Your task to perform on an android device: Add beats solo 3 to the cart on newegg Image 0: 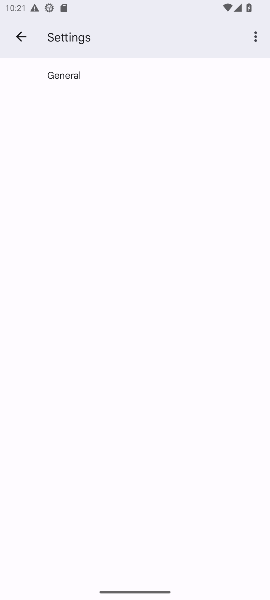
Step 0: press home button
Your task to perform on an android device: Add beats solo 3 to the cart on newegg Image 1: 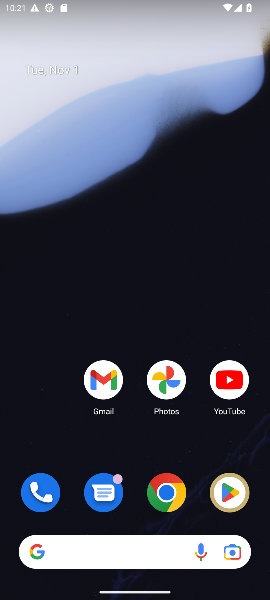
Step 1: click (172, 506)
Your task to perform on an android device: Add beats solo 3 to the cart on newegg Image 2: 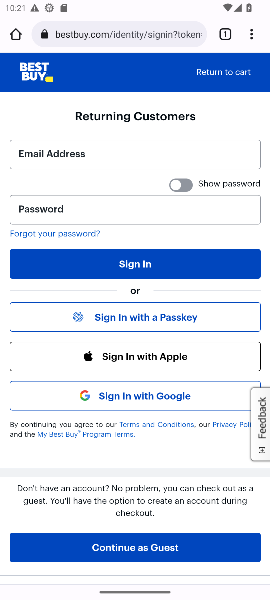
Step 2: click (102, 27)
Your task to perform on an android device: Add beats solo 3 to the cart on newegg Image 3: 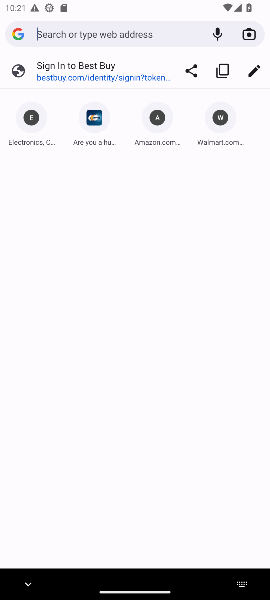
Step 3: type "newegg"
Your task to perform on an android device: Add beats solo 3 to the cart on newegg Image 4: 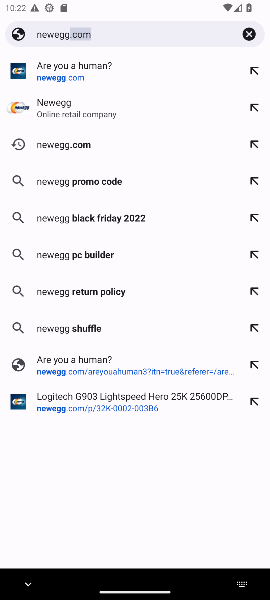
Step 4: click (58, 104)
Your task to perform on an android device: Add beats solo 3 to the cart on newegg Image 5: 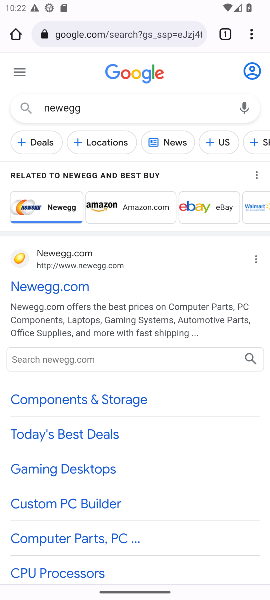
Step 5: click (45, 288)
Your task to perform on an android device: Add beats solo 3 to the cart on newegg Image 6: 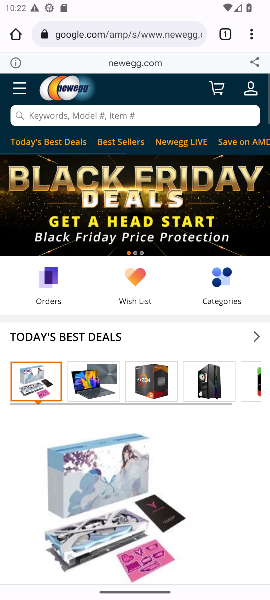
Step 6: click (126, 115)
Your task to perform on an android device: Add beats solo 3 to the cart on newegg Image 7: 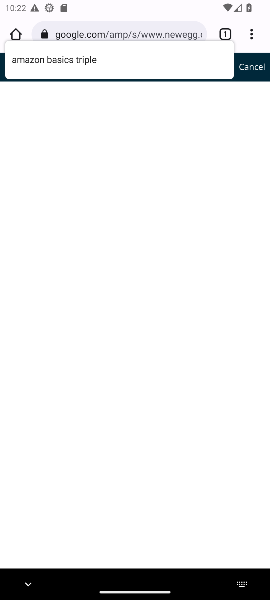
Step 7: click (134, 29)
Your task to perform on an android device: Add beats solo 3 to the cart on newegg Image 8: 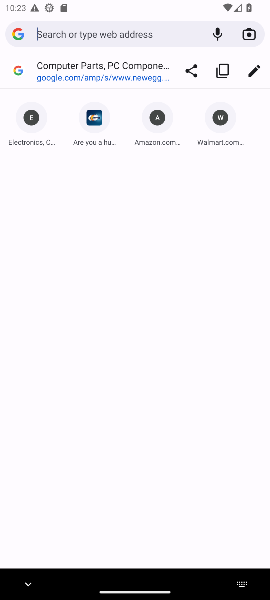
Step 8: type "newegg"
Your task to perform on an android device: Add beats solo 3 to the cart on newegg Image 9: 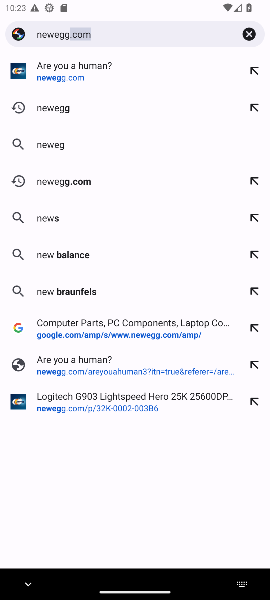
Step 9: type ""
Your task to perform on an android device: Add beats solo 3 to the cart on newegg Image 10: 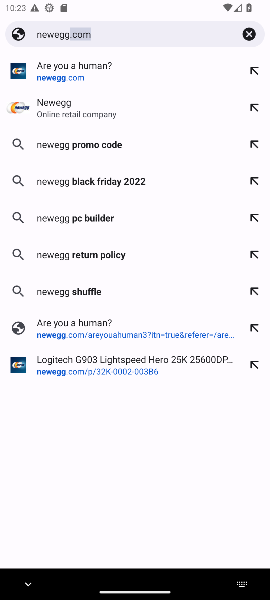
Step 10: click (59, 100)
Your task to perform on an android device: Add beats solo 3 to the cart on newegg Image 11: 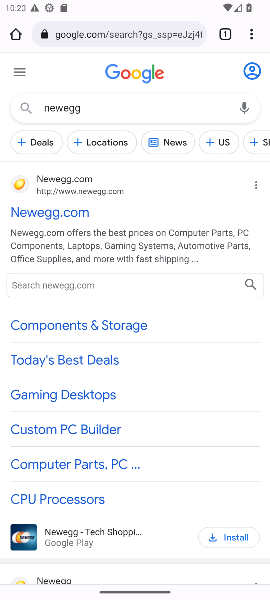
Step 11: click (46, 218)
Your task to perform on an android device: Add beats solo 3 to the cart on newegg Image 12: 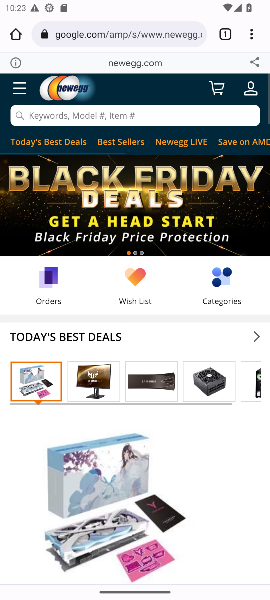
Step 12: click (84, 110)
Your task to perform on an android device: Add beats solo 3 to the cart on newegg Image 13: 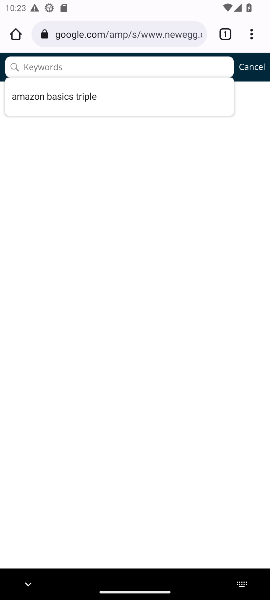
Step 13: click (41, 63)
Your task to perform on an android device: Add beats solo 3 to the cart on newegg Image 14: 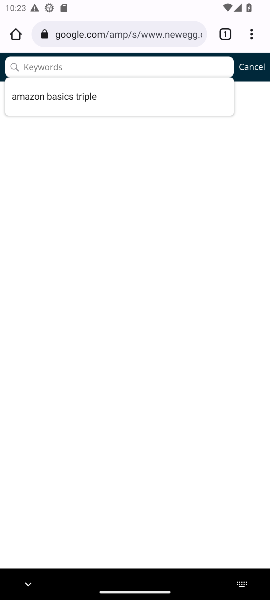
Step 14: type "beats solo 3"
Your task to perform on an android device: Add beats solo 3 to the cart on newegg Image 15: 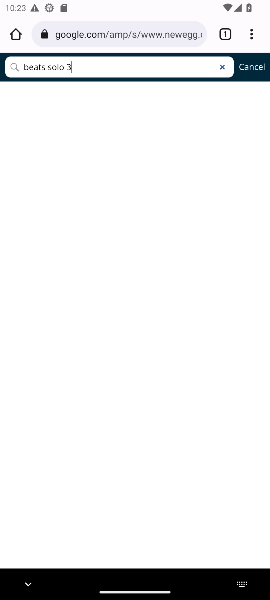
Step 15: click (9, 64)
Your task to perform on an android device: Add beats solo 3 to the cart on newegg Image 16: 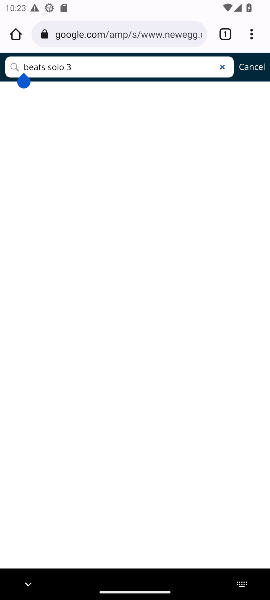
Step 16: click (10, 63)
Your task to perform on an android device: Add beats solo 3 to the cart on newegg Image 17: 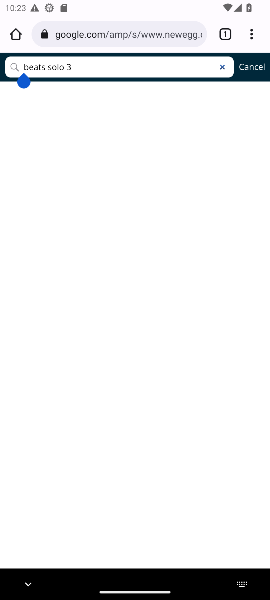
Step 17: click (220, 67)
Your task to perform on an android device: Add beats solo 3 to the cart on newegg Image 18: 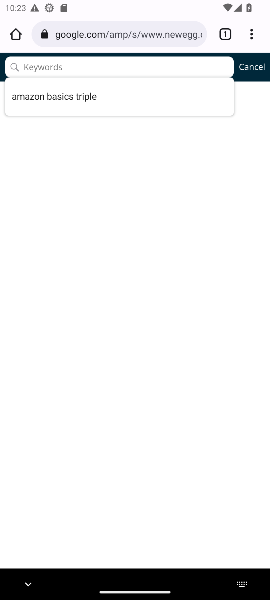
Step 18: press back button
Your task to perform on an android device: Add beats solo 3 to the cart on newegg Image 19: 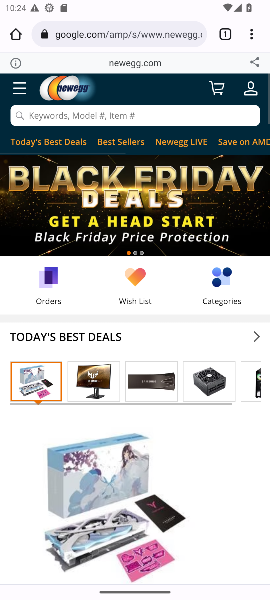
Step 19: press back button
Your task to perform on an android device: Add beats solo 3 to the cart on newegg Image 20: 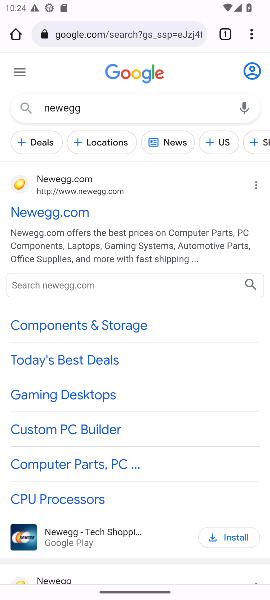
Step 20: drag from (40, 467) to (92, 144)
Your task to perform on an android device: Add beats solo 3 to the cart on newegg Image 21: 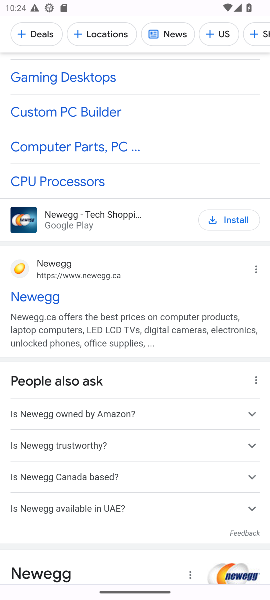
Step 21: click (39, 300)
Your task to perform on an android device: Add beats solo 3 to the cart on newegg Image 22: 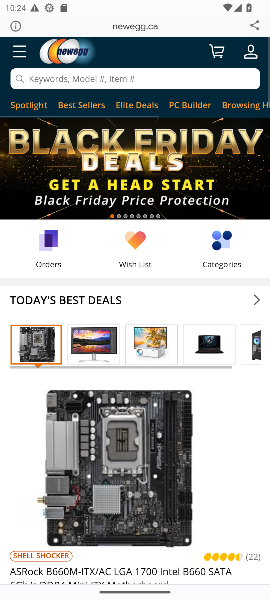
Step 22: click (58, 79)
Your task to perform on an android device: Add beats solo 3 to the cart on newegg Image 23: 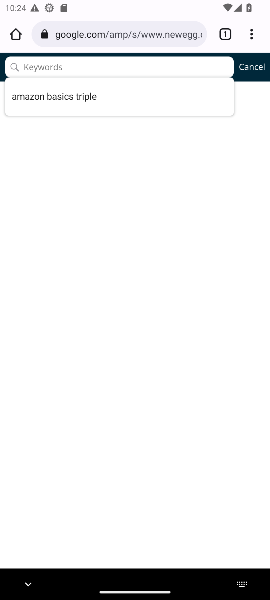
Step 23: click (51, 64)
Your task to perform on an android device: Add beats solo 3 to the cart on newegg Image 24: 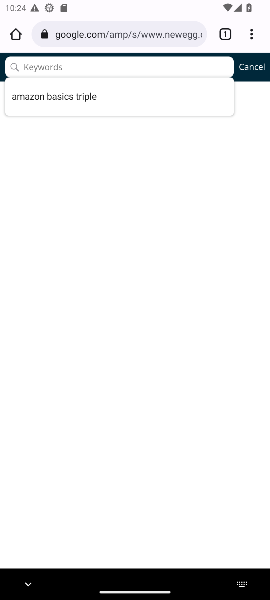
Step 24: type "newegg"
Your task to perform on an android device: Add beats solo 3 to the cart on newegg Image 25: 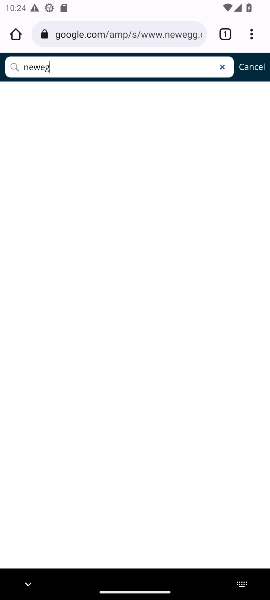
Step 25: type ""
Your task to perform on an android device: Add beats solo 3 to the cart on newegg Image 26: 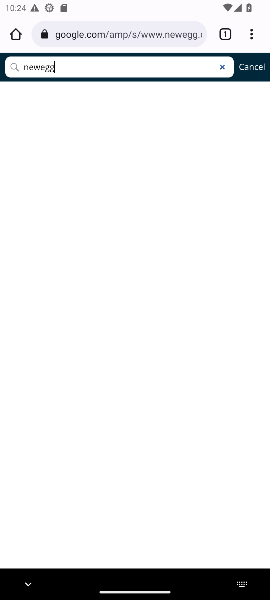
Step 26: click (222, 66)
Your task to perform on an android device: Add beats solo 3 to the cart on newegg Image 27: 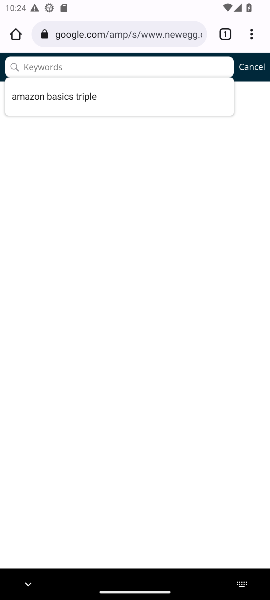
Step 27: press home button
Your task to perform on an android device: Add beats solo 3 to the cart on newegg Image 28: 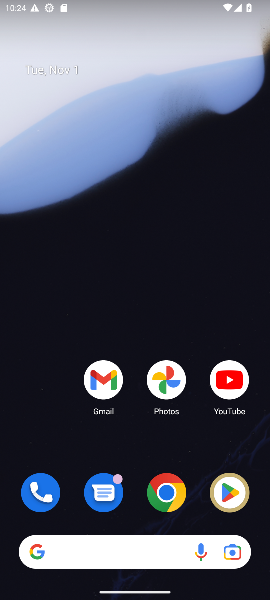
Step 28: click (169, 487)
Your task to perform on an android device: Add beats solo 3 to the cart on newegg Image 29: 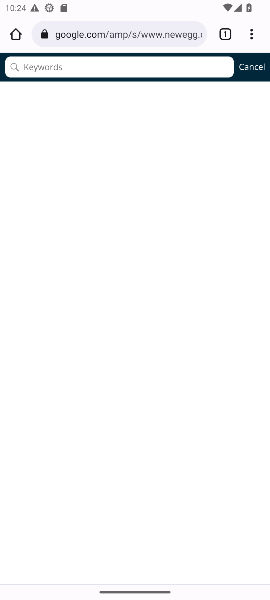
Step 29: click (12, 70)
Your task to perform on an android device: Add beats solo 3 to the cart on newegg Image 30: 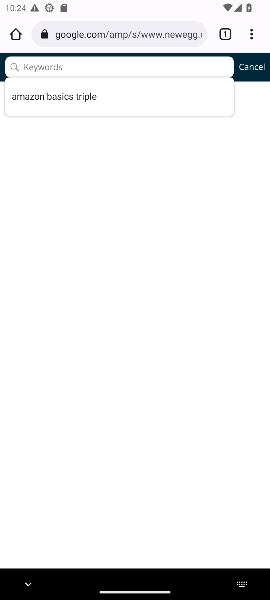
Step 30: click (47, 69)
Your task to perform on an android device: Add beats solo 3 to the cart on newegg Image 31: 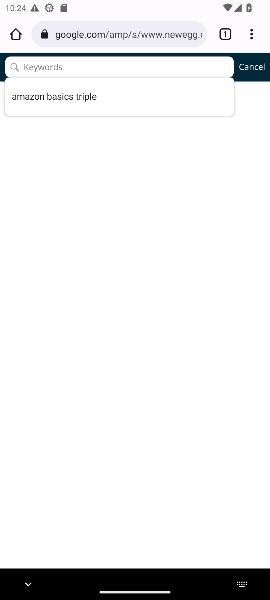
Step 31: click (47, 69)
Your task to perform on an android device: Add beats solo 3 to the cart on newegg Image 32: 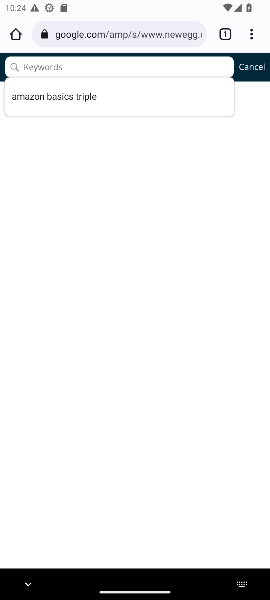
Step 32: click (38, 100)
Your task to perform on an android device: Add beats solo 3 to the cart on newegg Image 33: 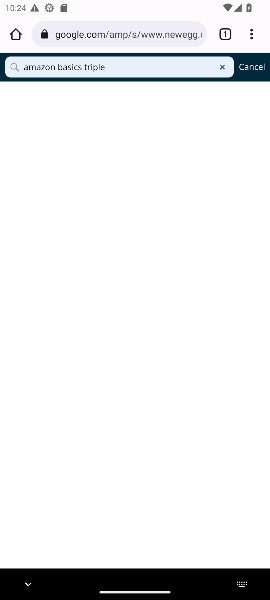
Step 33: click (224, 68)
Your task to perform on an android device: Add beats solo 3 to the cart on newegg Image 34: 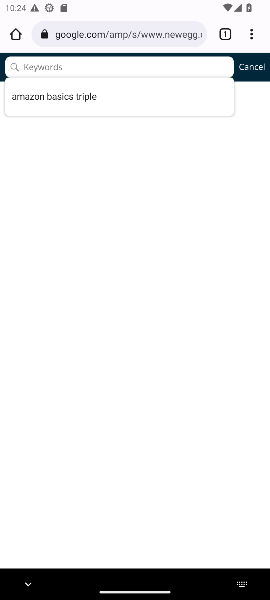
Step 34: press home button
Your task to perform on an android device: Add beats solo 3 to the cart on newegg Image 35: 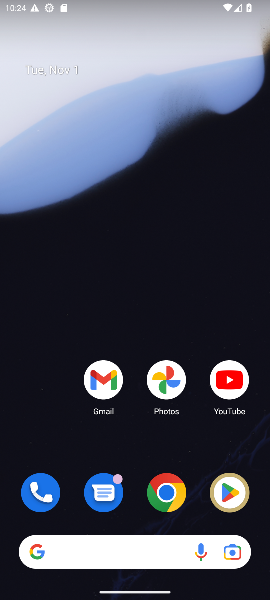
Step 35: click (162, 492)
Your task to perform on an android device: Add beats solo 3 to the cart on newegg Image 36: 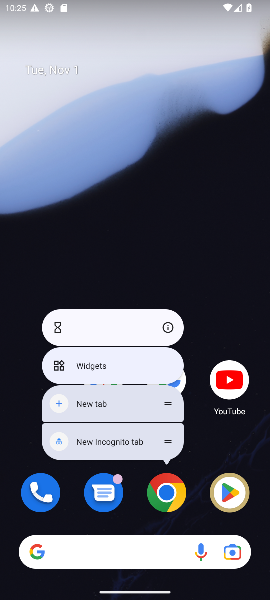
Step 36: click (168, 489)
Your task to perform on an android device: Add beats solo 3 to the cart on newegg Image 37: 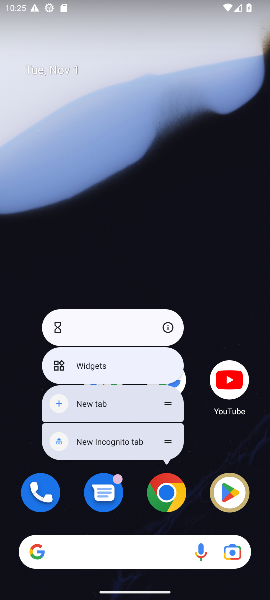
Step 37: click (169, 489)
Your task to perform on an android device: Add beats solo 3 to the cart on newegg Image 38: 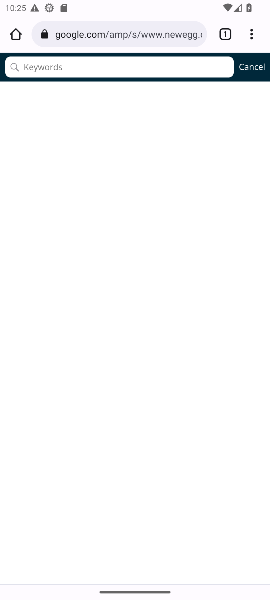
Step 38: press back button
Your task to perform on an android device: Add beats solo 3 to the cart on newegg Image 39: 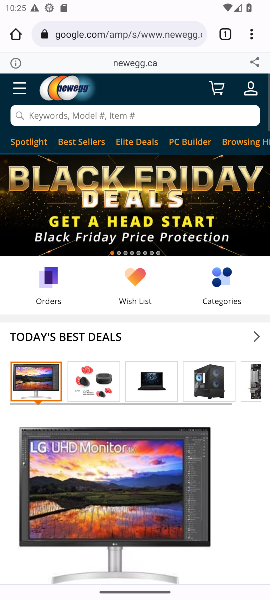
Step 39: drag from (141, 465) to (189, 568)
Your task to perform on an android device: Add beats solo 3 to the cart on newegg Image 40: 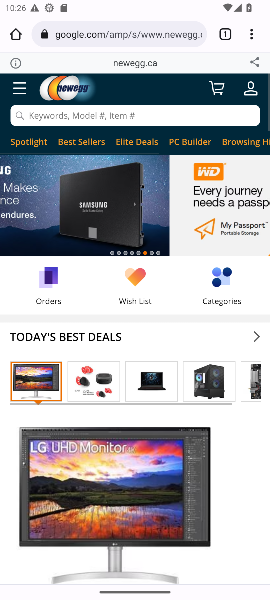
Step 40: press home button
Your task to perform on an android device: Add beats solo 3 to the cart on newegg Image 41: 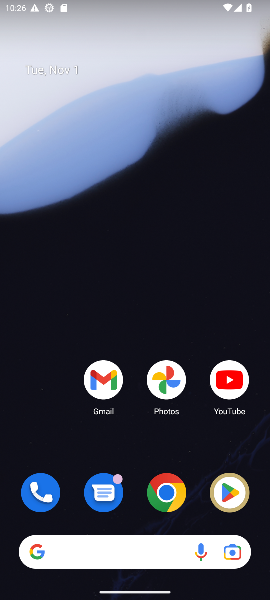
Step 41: click (167, 492)
Your task to perform on an android device: Add beats solo 3 to the cart on newegg Image 42: 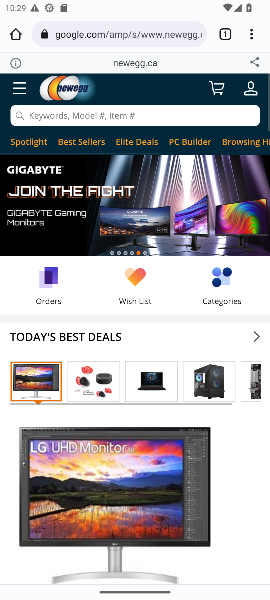
Step 42: task complete